Your task to perform on an android device: Open my contact list Image 0: 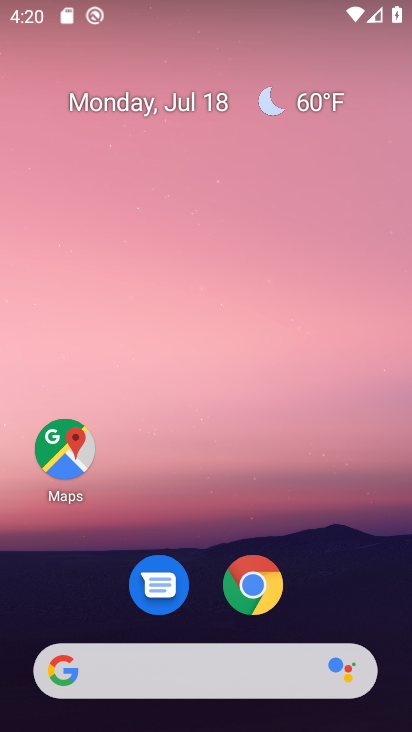
Step 0: drag from (325, 580) to (401, 39)
Your task to perform on an android device: Open my contact list Image 1: 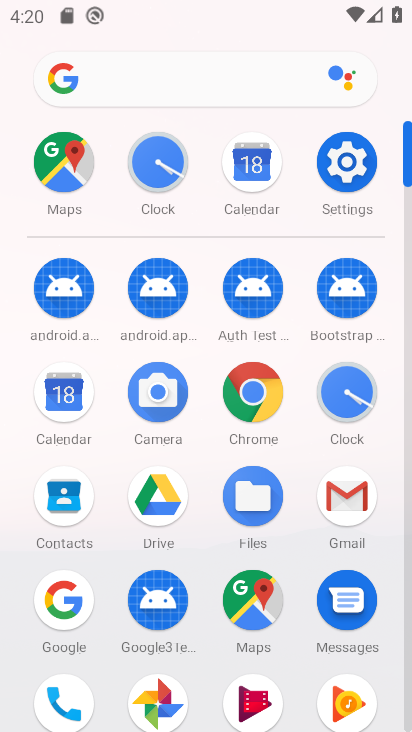
Step 1: click (77, 499)
Your task to perform on an android device: Open my contact list Image 2: 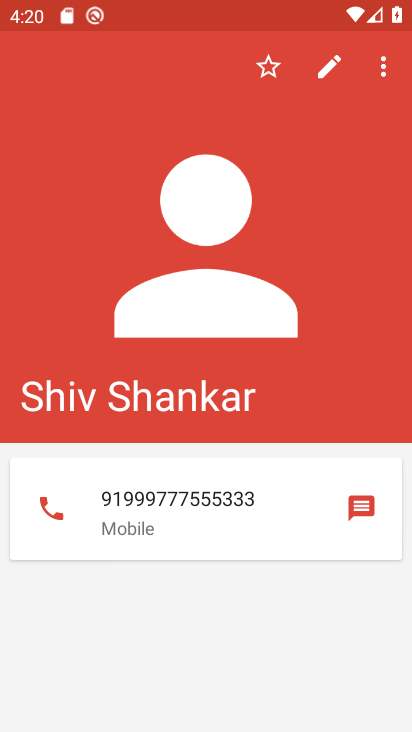
Step 2: task complete